Your task to perform on an android device: move a message to another label in the gmail app Image 0: 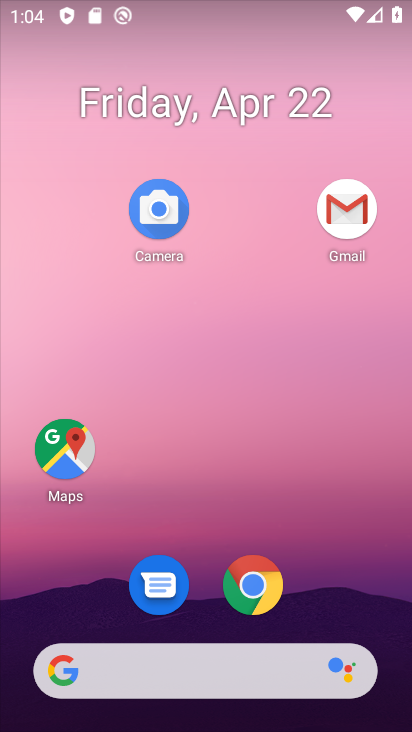
Step 0: click (341, 203)
Your task to perform on an android device: move a message to another label in the gmail app Image 1: 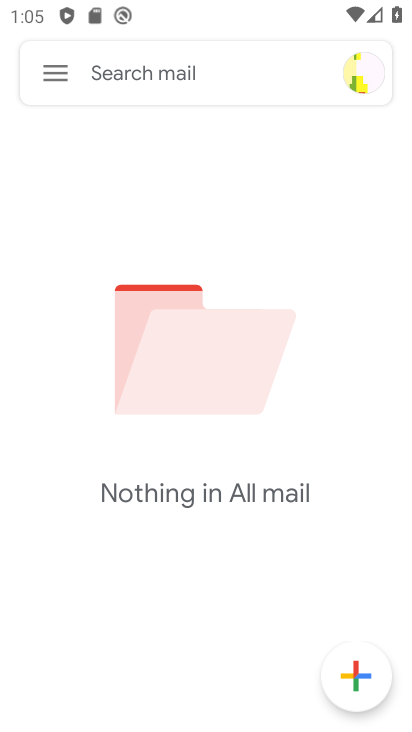
Step 1: task complete